Your task to perform on an android device: delete a single message in the gmail app Image 0: 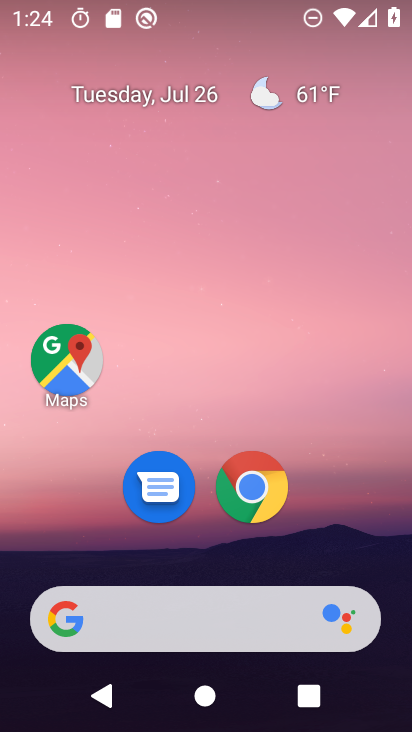
Step 0: drag from (207, 563) to (333, 3)
Your task to perform on an android device: delete a single message in the gmail app Image 1: 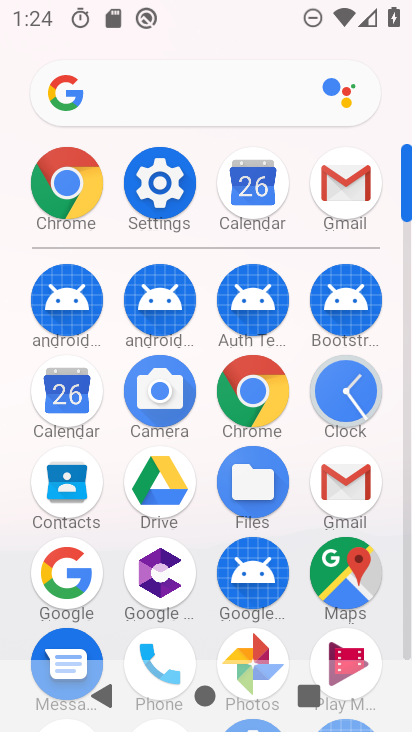
Step 1: click (346, 175)
Your task to perform on an android device: delete a single message in the gmail app Image 2: 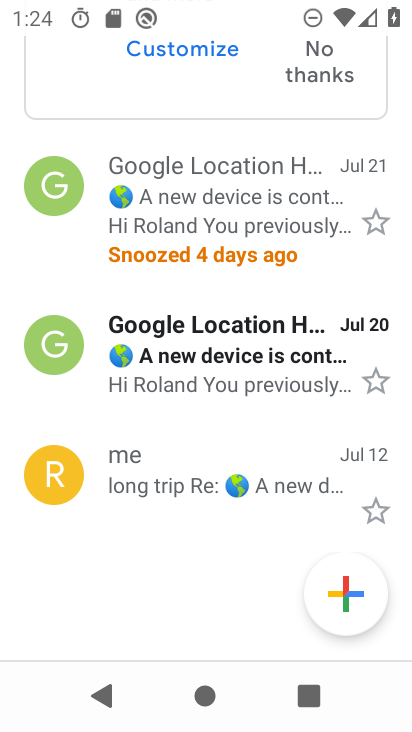
Step 2: drag from (173, 190) to (171, 364)
Your task to perform on an android device: delete a single message in the gmail app Image 3: 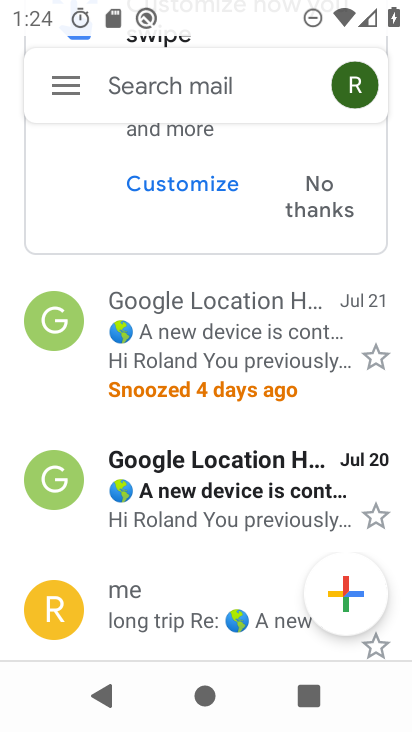
Step 3: click (222, 493)
Your task to perform on an android device: delete a single message in the gmail app Image 4: 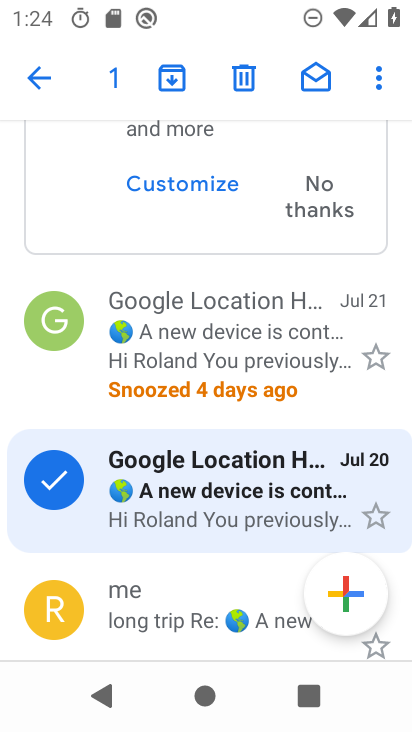
Step 4: click (246, 74)
Your task to perform on an android device: delete a single message in the gmail app Image 5: 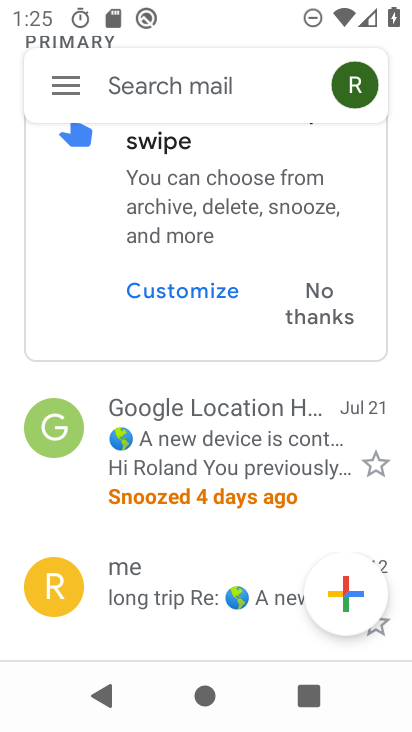
Step 5: task complete